Your task to perform on an android device: Search for Italian restaurants on Maps Image 0: 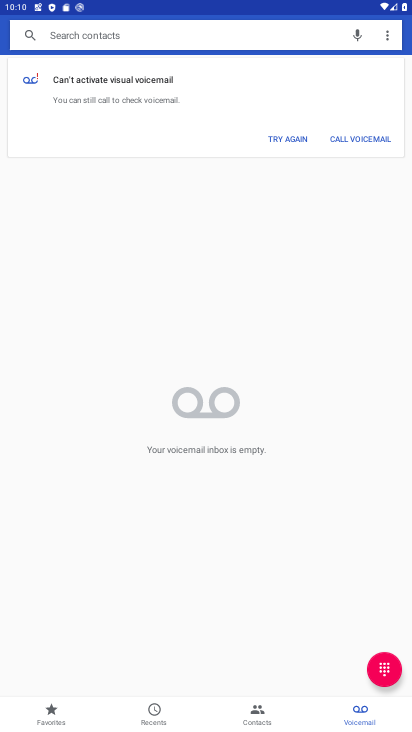
Step 0: press home button
Your task to perform on an android device: Search for Italian restaurants on Maps Image 1: 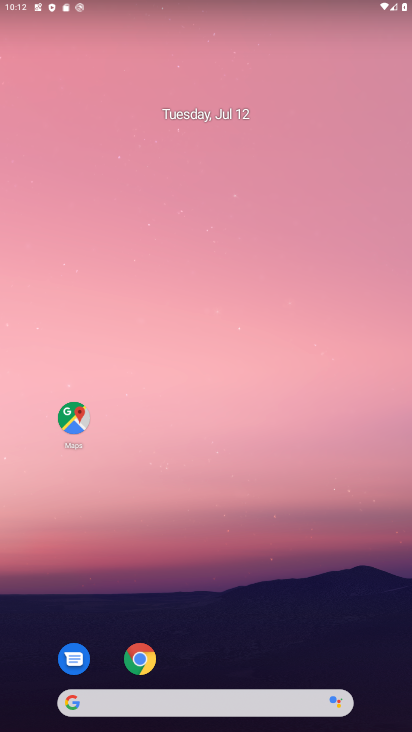
Step 1: click (71, 404)
Your task to perform on an android device: Search for Italian restaurants on Maps Image 2: 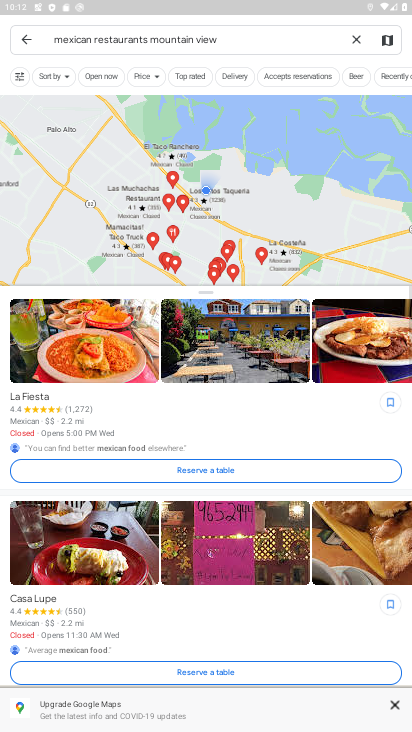
Step 2: click (355, 43)
Your task to perform on an android device: Search for Italian restaurants on Maps Image 3: 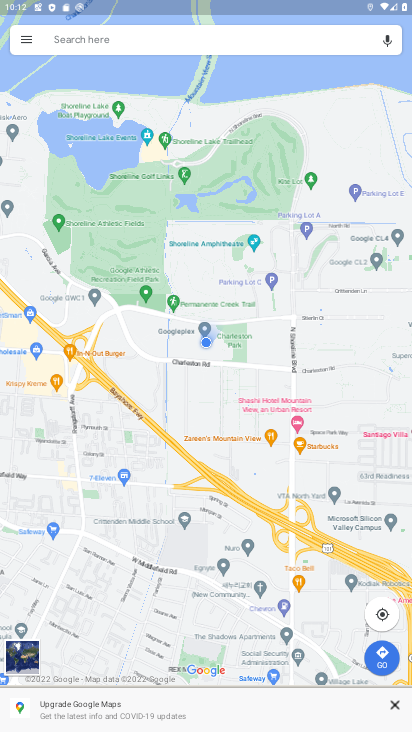
Step 3: click (117, 41)
Your task to perform on an android device: Search for Italian restaurants on Maps Image 4: 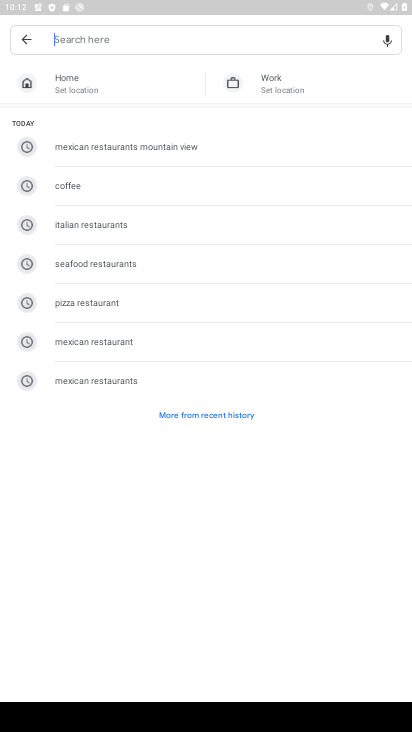
Step 4: type "Italian restaurants"
Your task to perform on an android device: Search for Italian restaurants on Maps Image 5: 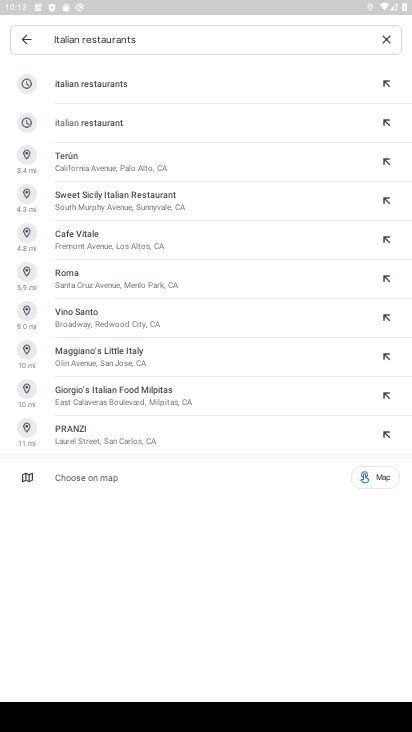
Step 5: click (100, 82)
Your task to perform on an android device: Search for Italian restaurants on Maps Image 6: 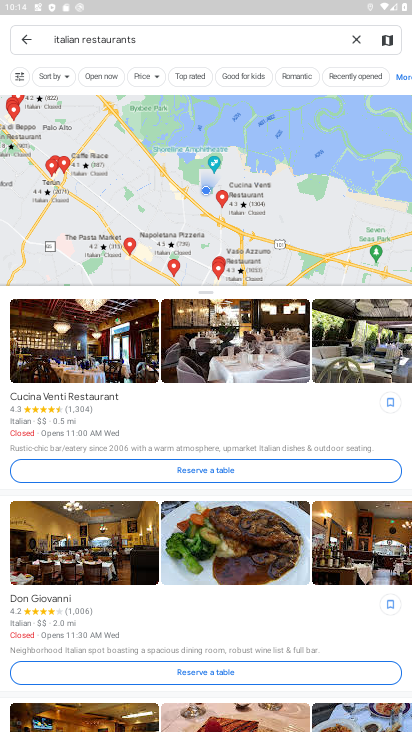
Step 6: task complete